Your task to perform on an android device: star an email in the gmail app Image 0: 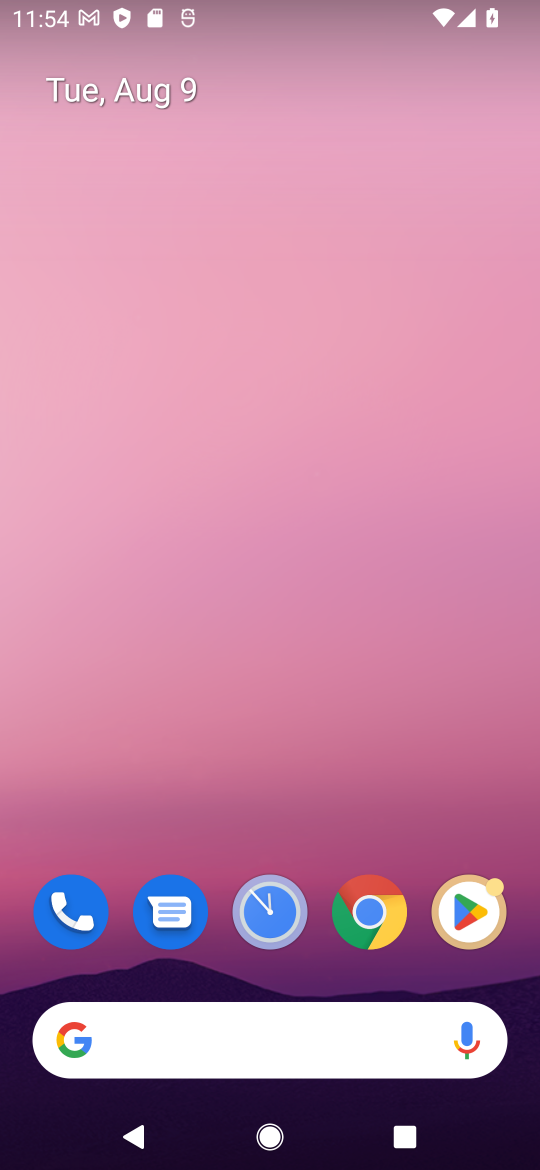
Step 0: drag from (333, 1002) to (351, 312)
Your task to perform on an android device: star an email in the gmail app Image 1: 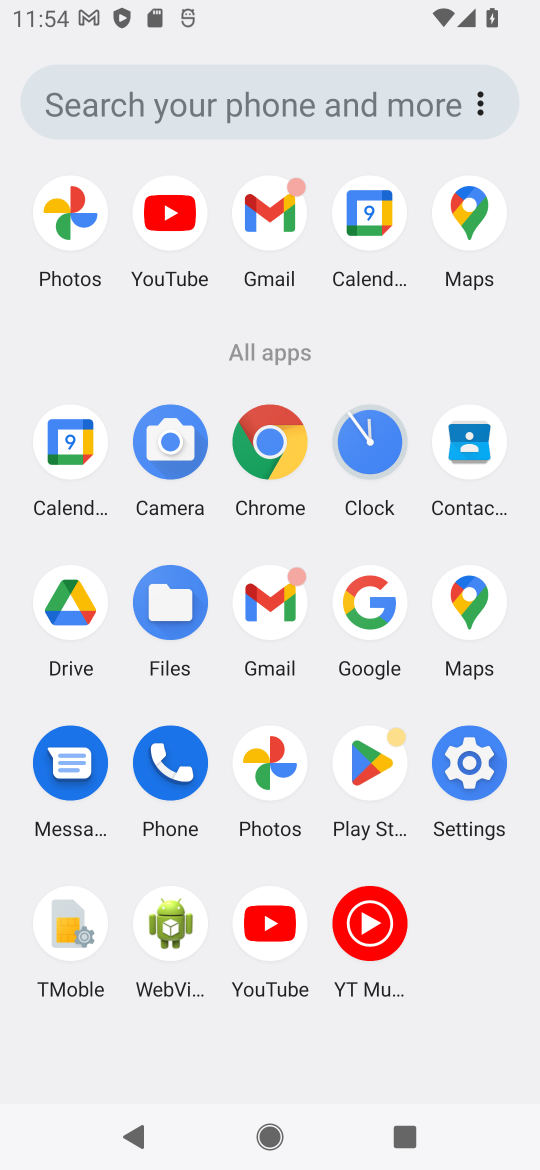
Step 1: click (276, 221)
Your task to perform on an android device: star an email in the gmail app Image 2: 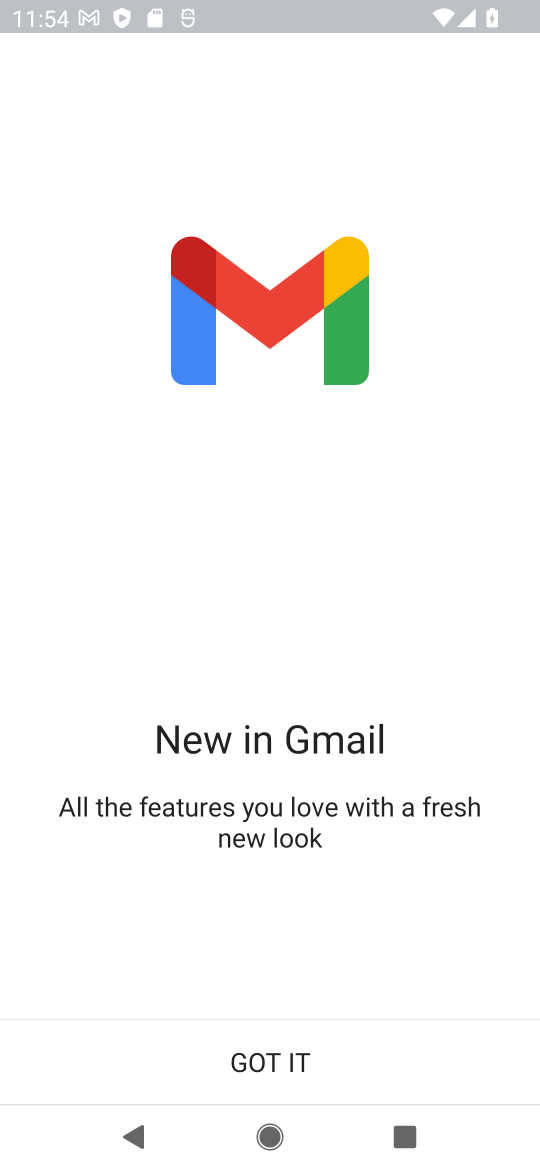
Step 2: click (219, 1047)
Your task to perform on an android device: star an email in the gmail app Image 3: 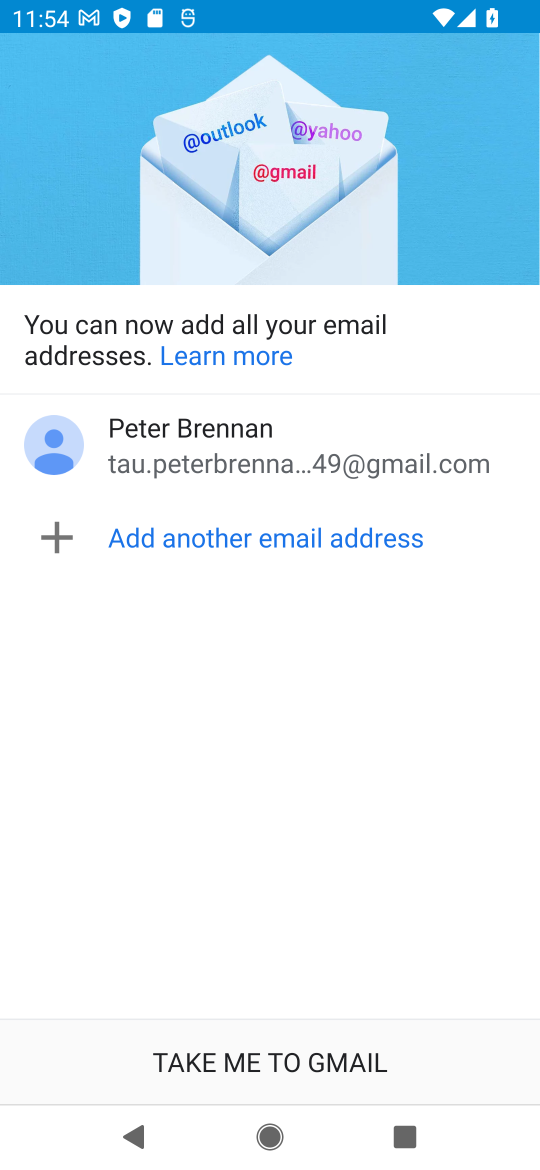
Step 3: click (219, 1047)
Your task to perform on an android device: star an email in the gmail app Image 4: 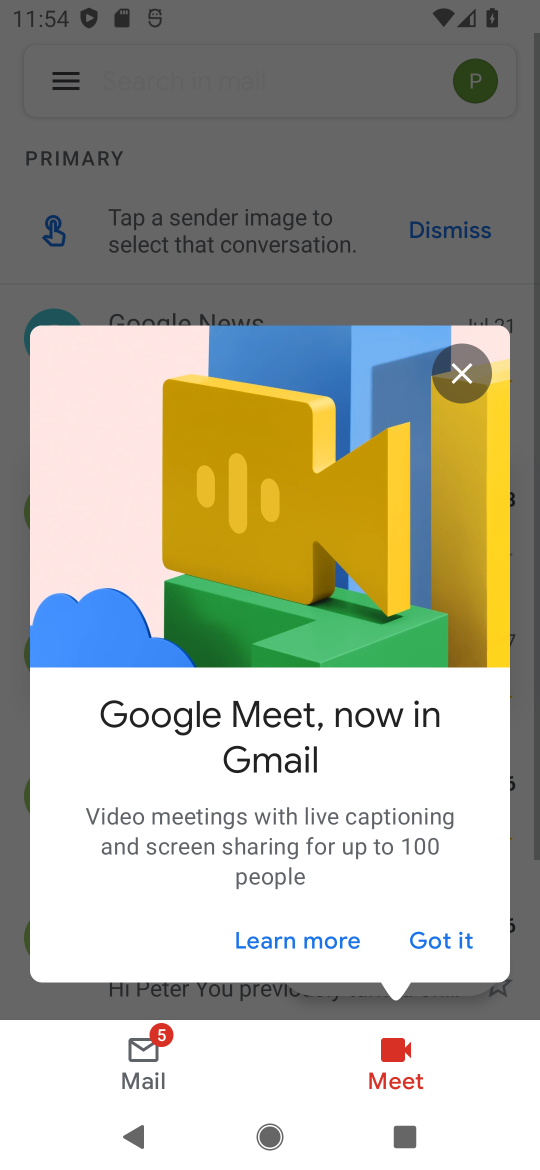
Step 4: click (453, 372)
Your task to perform on an android device: star an email in the gmail app Image 5: 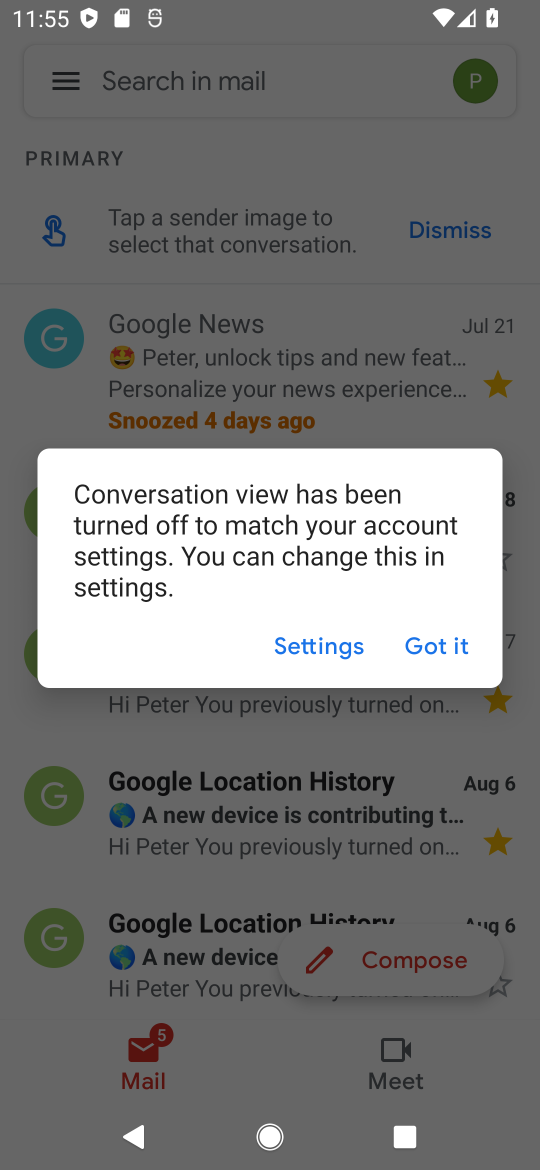
Step 5: click (423, 651)
Your task to perform on an android device: star an email in the gmail app Image 6: 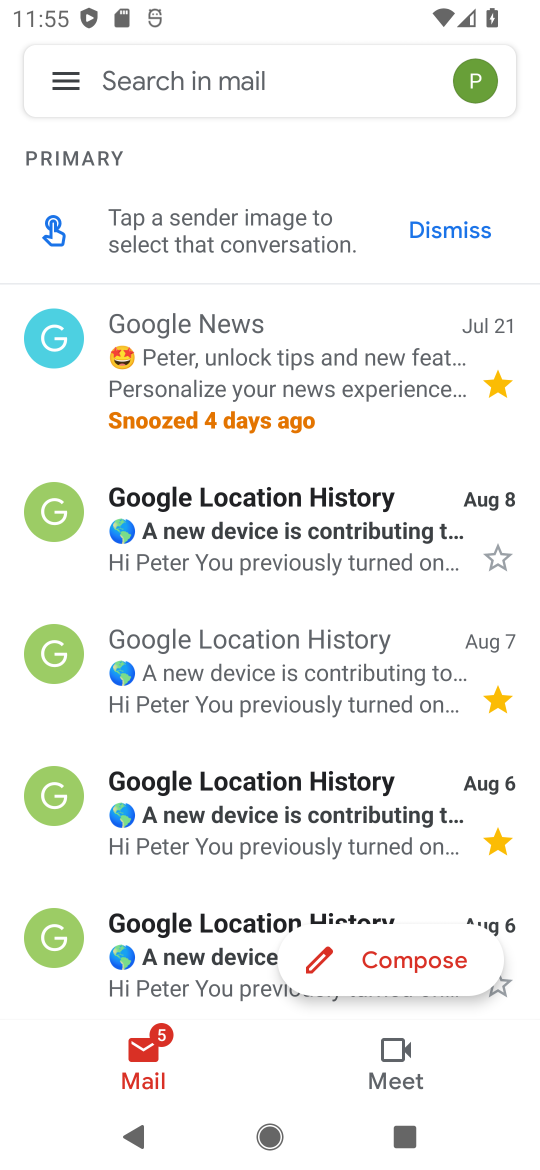
Step 6: click (498, 559)
Your task to perform on an android device: star an email in the gmail app Image 7: 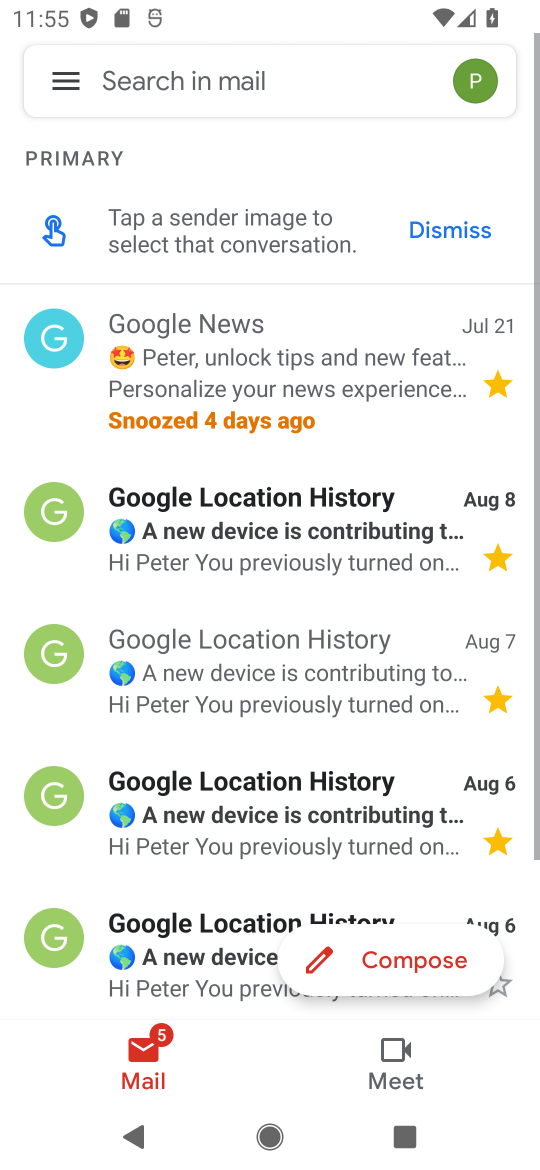
Step 7: task complete